Your task to perform on an android device: Open Maps and search for coffee Image 0: 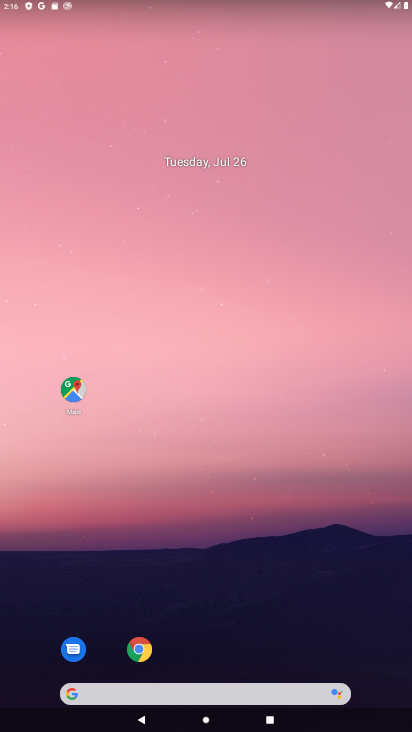
Step 0: click (82, 388)
Your task to perform on an android device: Open Maps and search for coffee Image 1: 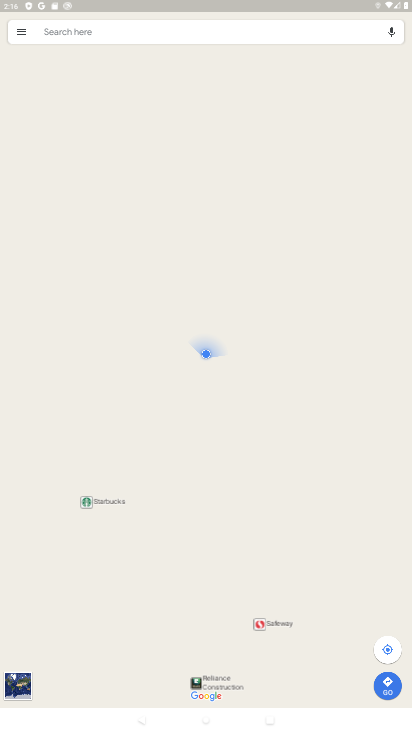
Step 1: click (191, 29)
Your task to perform on an android device: Open Maps and search for coffee Image 2: 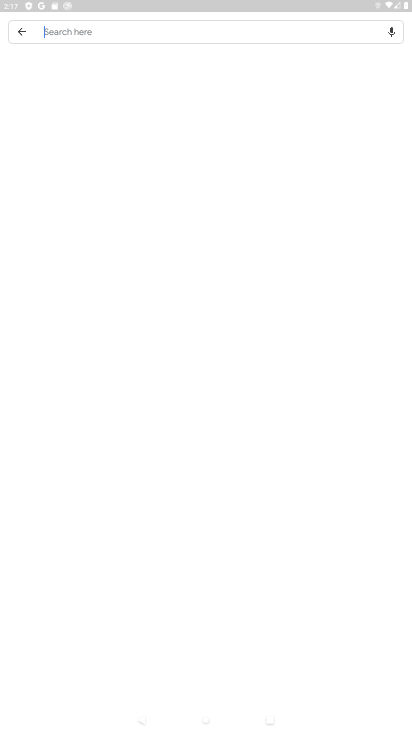
Step 2: click (124, 31)
Your task to perform on an android device: Open Maps and search for coffee Image 3: 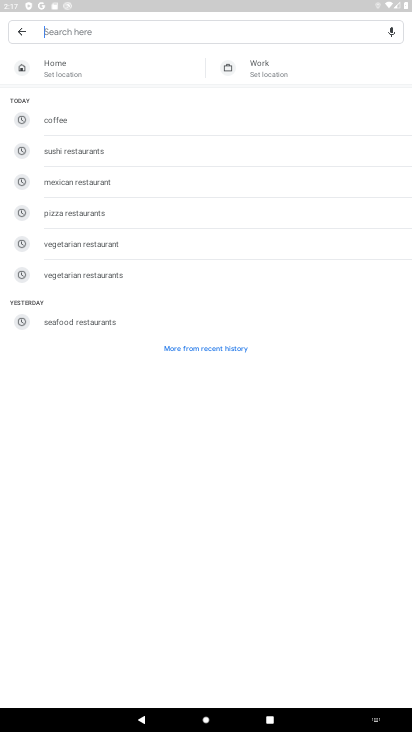
Step 3: click (57, 122)
Your task to perform on an android device: Open Maps and search for coffee Image 4: 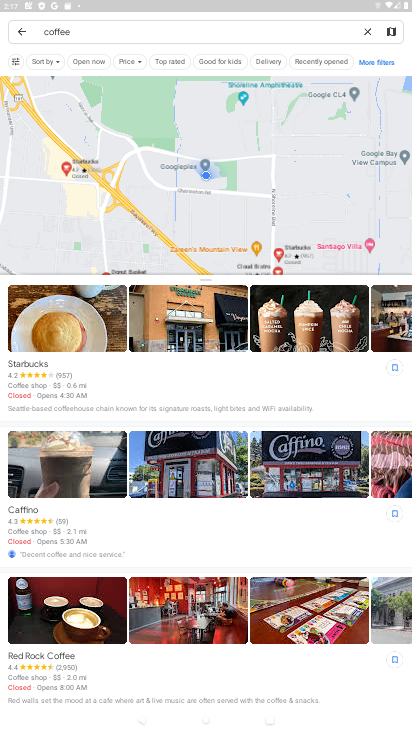
Step 4: task complete